Your task to perform on an android device: turn pop-ups on in chrome Image 0: 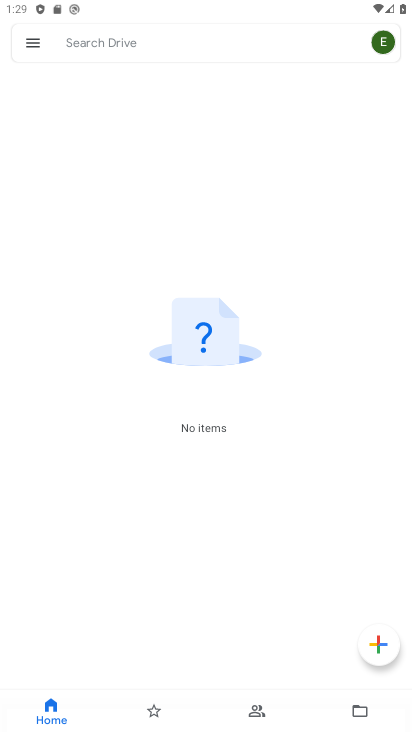
Step 0: press home button
Your task to perform on an android device: turn pop-ups on in chrome Image 1: 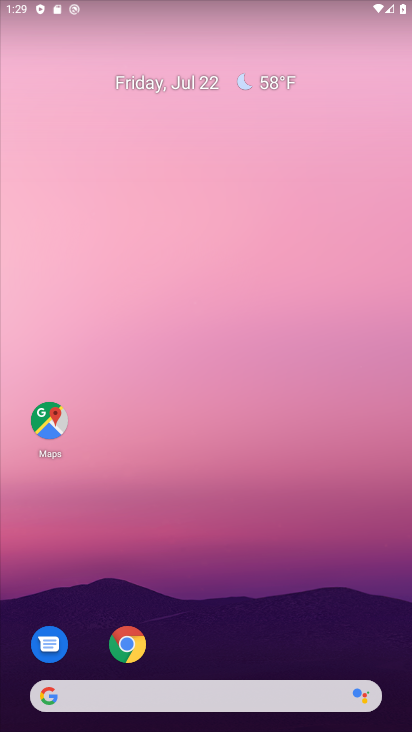
Step 1: click (121, 646)
Your task to perform on an android device: turn pop-ups on in chrome Image 2: 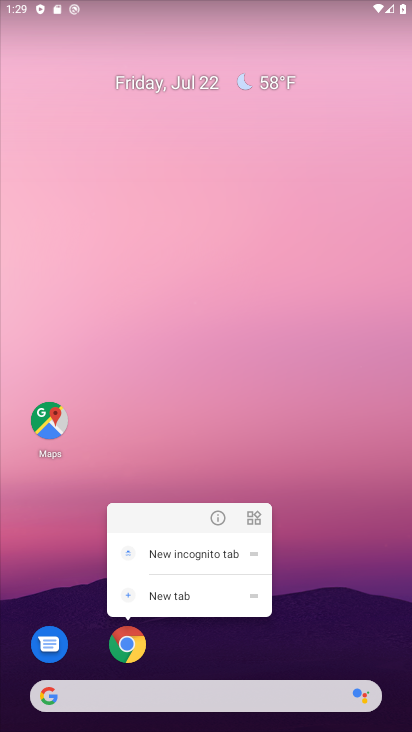
Step 2: click (136, 639)
Your task to perform on an android device: turn pop-ups on in chrome Image 3: 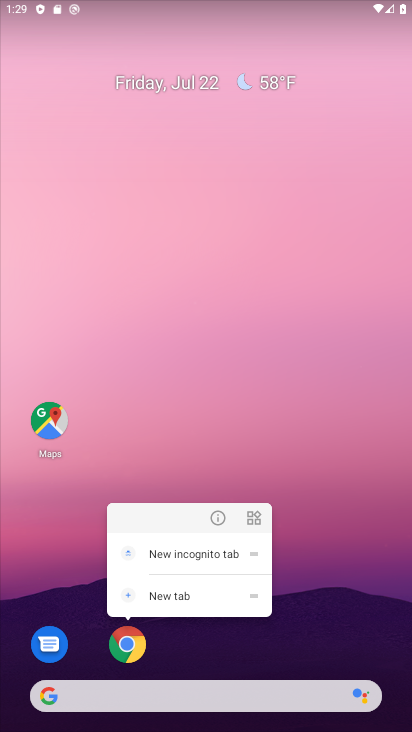
Step 3: click (139, 636)
Your task to perform on an android device: turn pop-ups on in chrome Image 4: 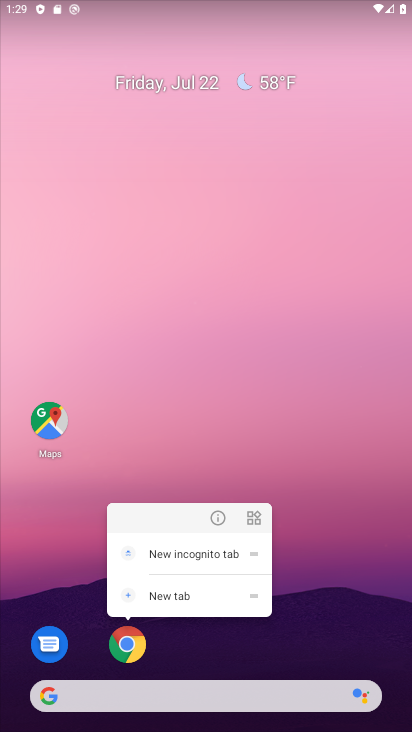
Step 4: click (117, 649)
Your task to perform on an android device: turn pop-ups on in chrome Image 5: 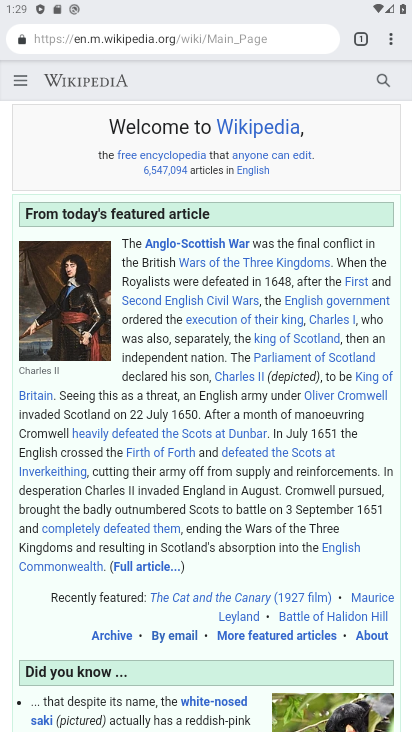
Step 5: click (385, 42)
Your task to perform on an android device: turn pop-ups on in chrome Image 6: 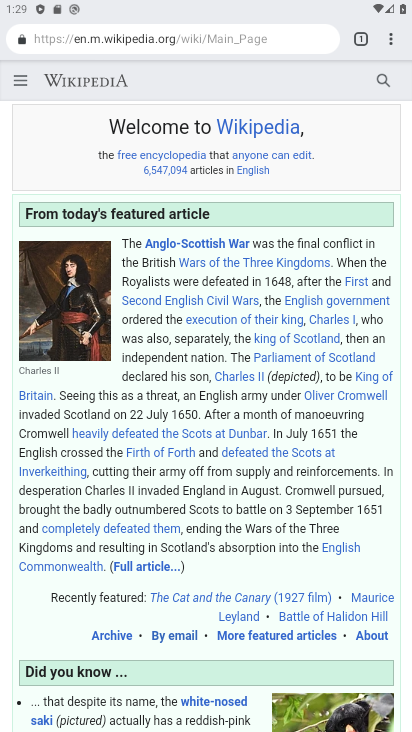
Step 6: click (393, 41)
Your task to perform on an android device: turn pop-ups on in chrome Image 7: 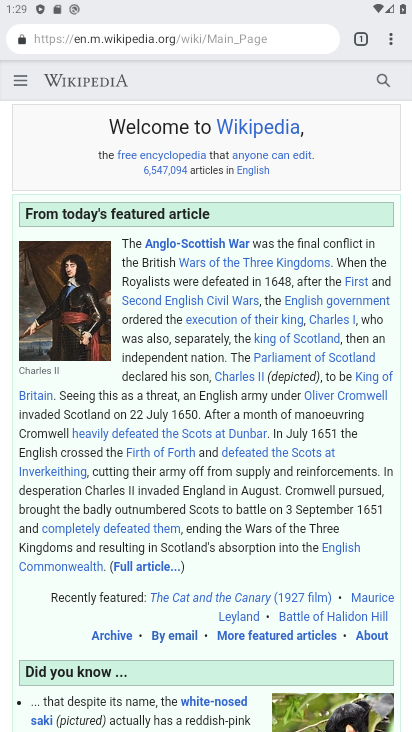
Step 7: click (393, 41)
Your task to perform on an android device: turn pop-ups on in chrome Image 8: 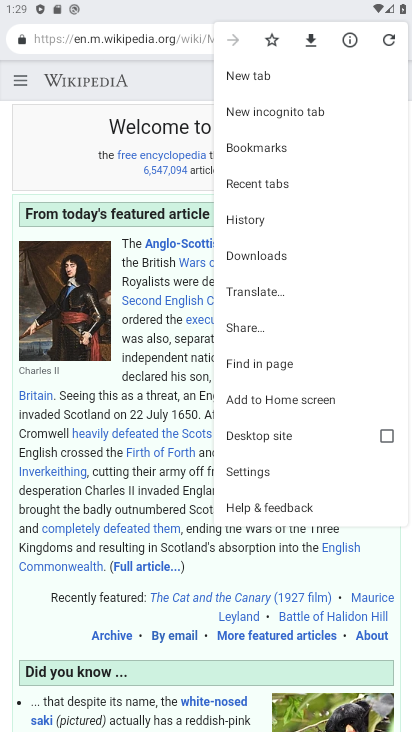
Step 8: click (249, 464)
Your task to perform on an android device: turn pop-ups on in chrome Image 9: 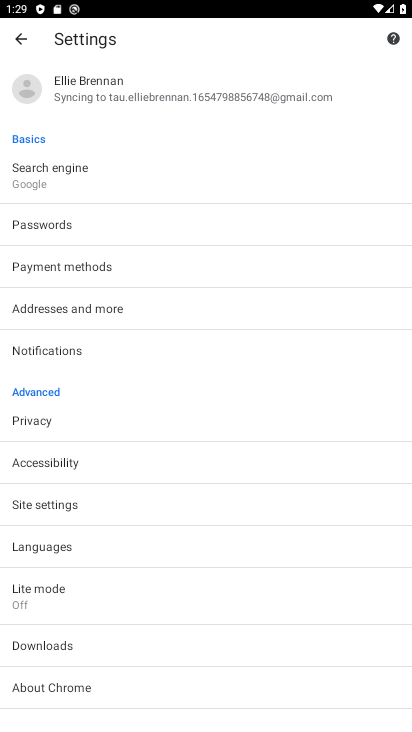
Step 9: click (29, 497)
Your task to perform on an android device: turn pop-ups on in chrome Image 10: 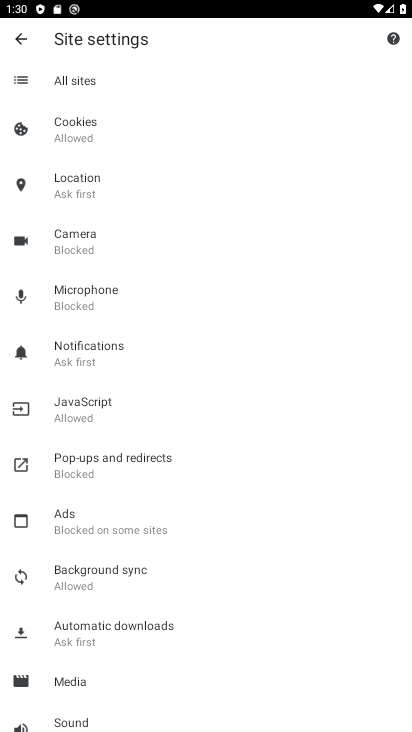
Step 10: click (92, 466)
Your task to perform on an android device: turn pop-ups on in chrome Image 11: 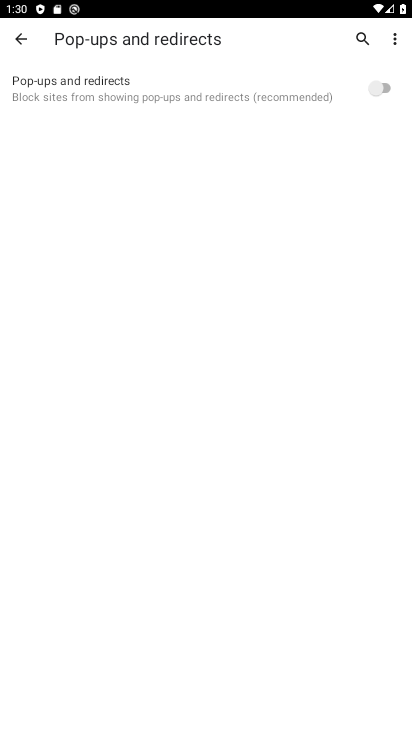
Step 11: click (384, 83)
Your task to perform on an android device: turn pop-ups on in chrome Image 12: 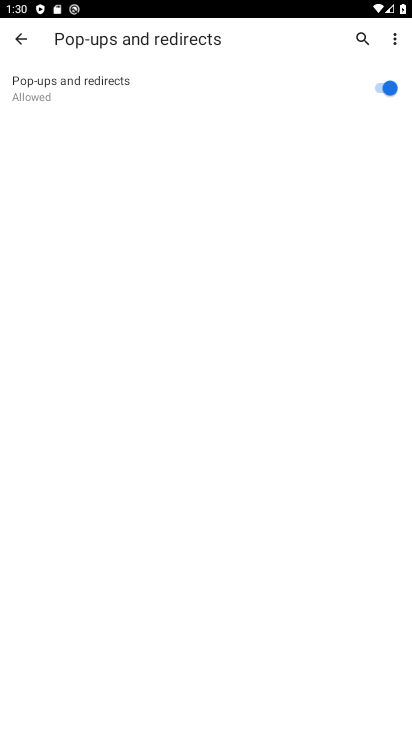
Step 12: task complete